Your task to perform on an android device: open app "Pluto TV - Live TV and Movies" (install if not already installed) Image 0: 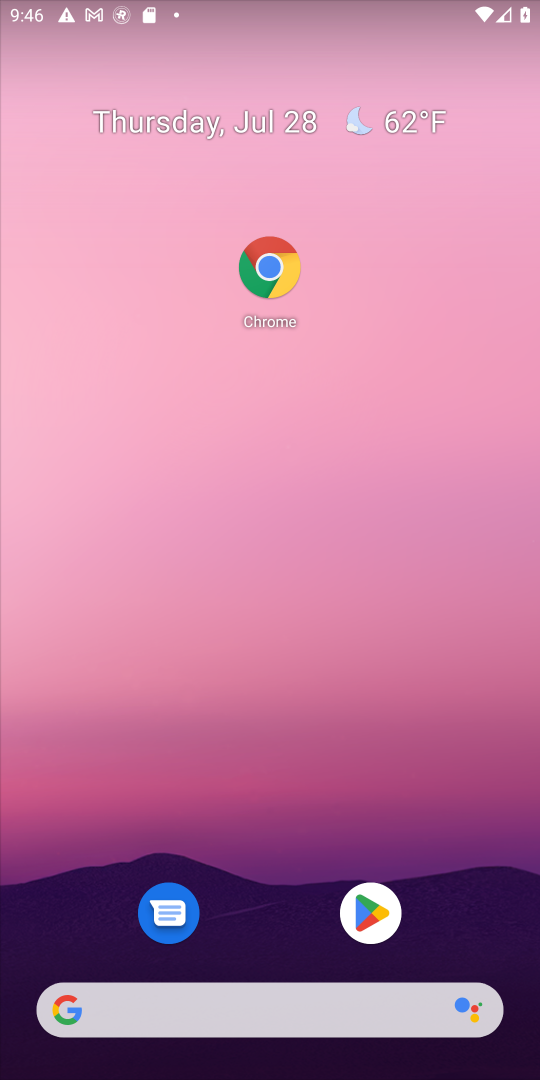
Step 0: click (378, 896)
Your task to perform on an android device: open app "Pluto TV - Live TV and Movies" (install if not already installed) Image 1: 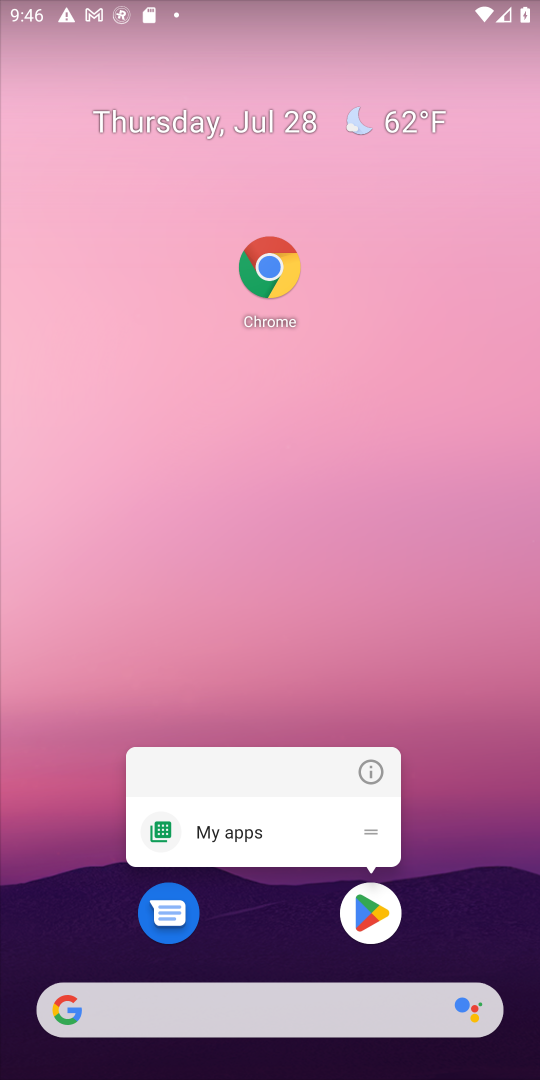
Step 1: click (388, 927)
Your task to perform on an android device: open app "Pluto TV - Live TV and Movies" (install if not already installed) Image 2: 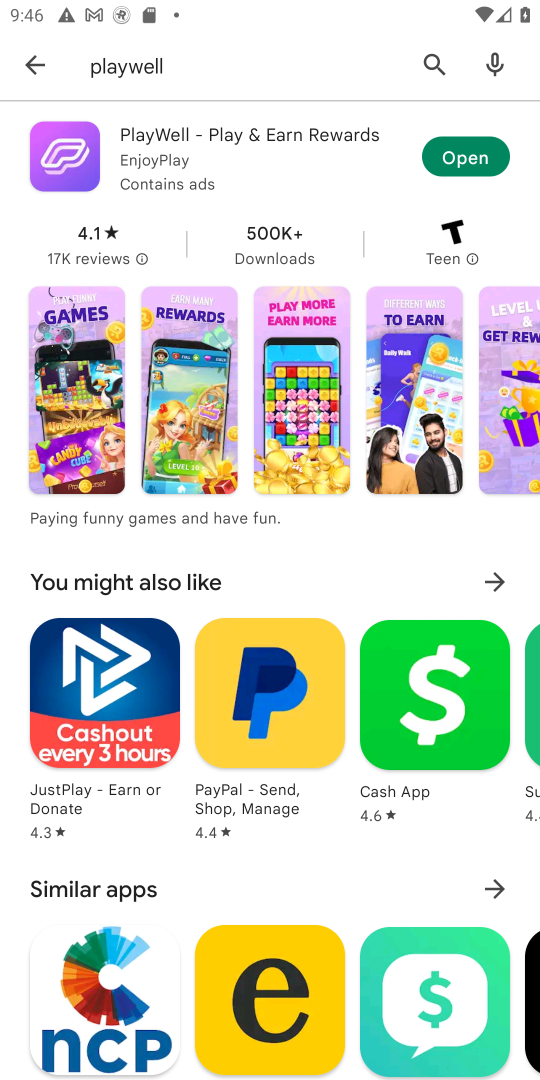
Step 2: click (427, 71)
Your task to perform on an android device: open app "Pluto TV - Live TV and Movies" (install if not already installed) Image 3: 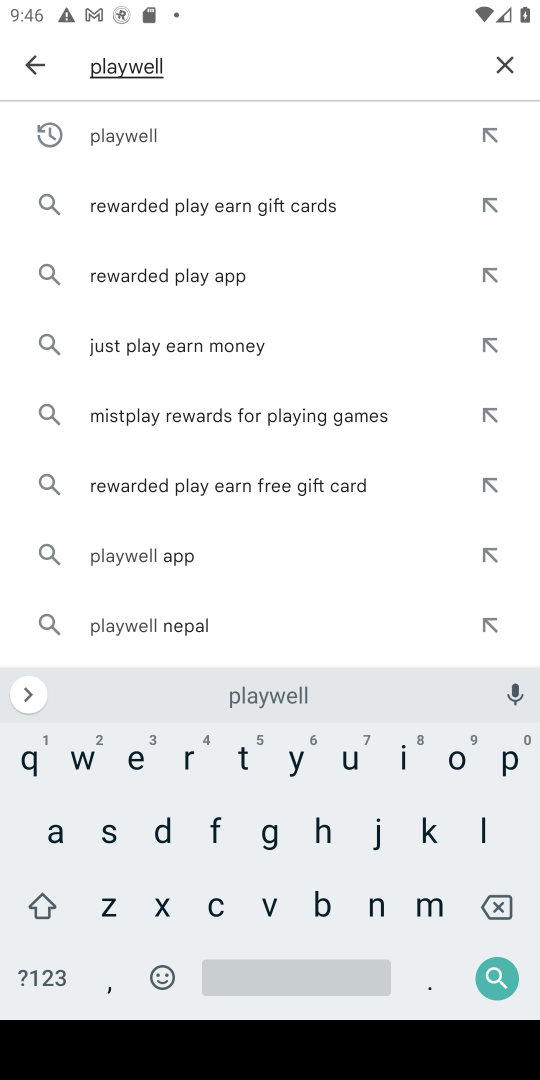
Step 3: click (515, 65)
Your task to perform on an android device: open app "Pluto TV - Live TV and Movies" (install if not already installed) Image 4: 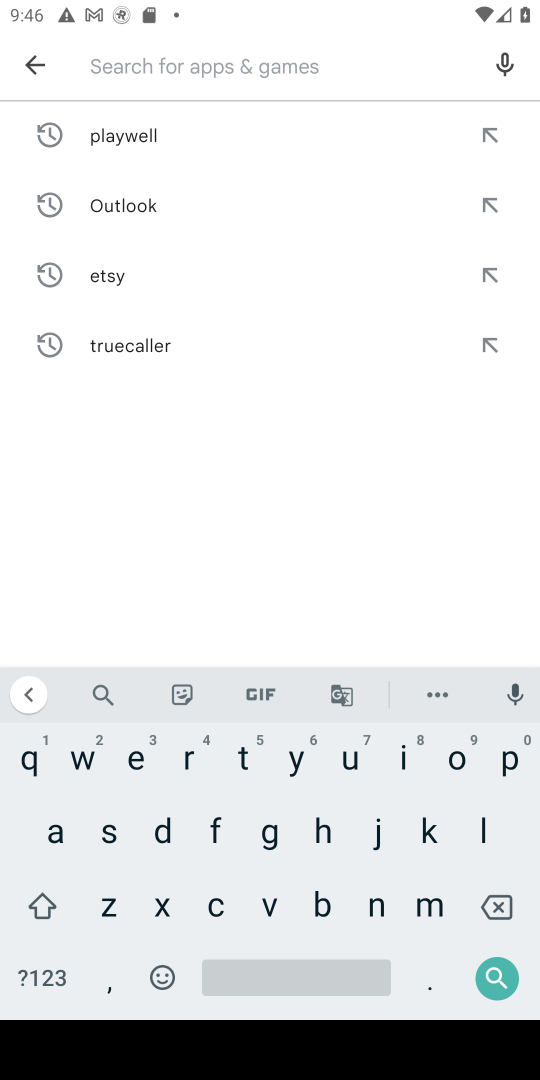
Step 4: click (513, 751)
Your task to perform on an android device: open app "Pluto TV - Live TV and Movies" (install if not already installed) Image 5: 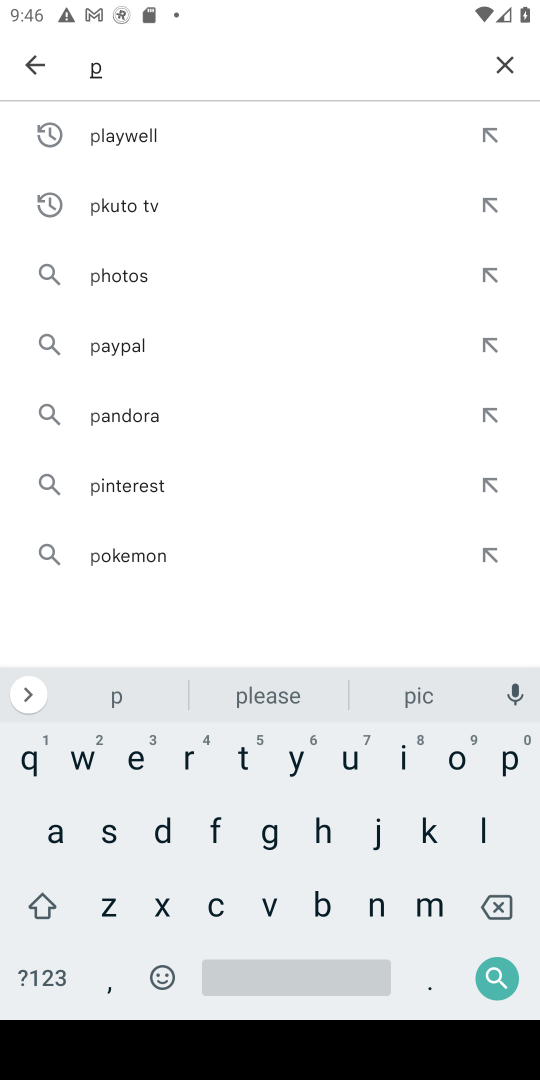
Step 5: click (485, 838)
Your task to perform on an android device: open app "Pluto TV - Live TV and Movies" (install if not already installed) Image 6: 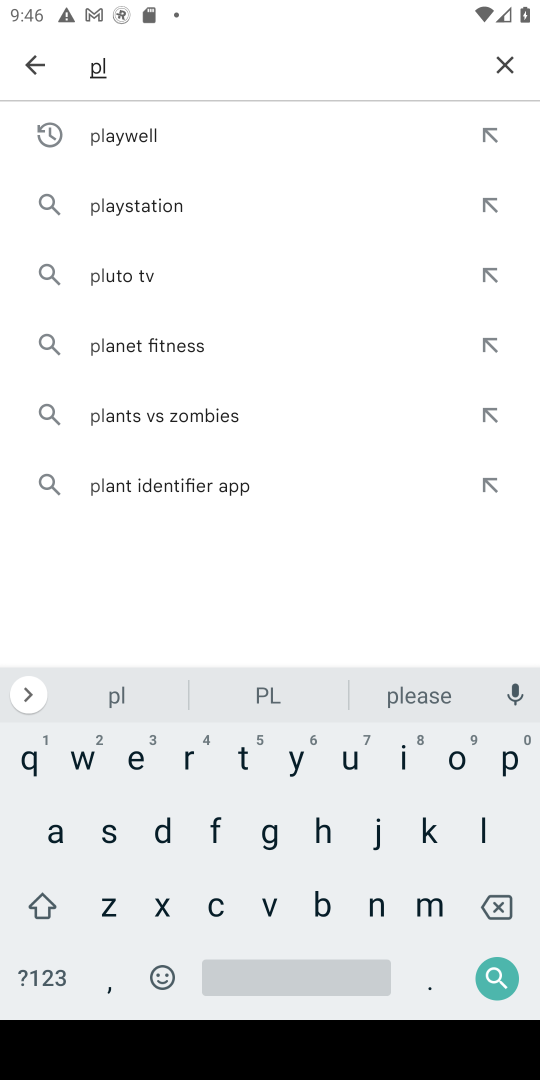
Step 6: click (351, 750)
Your task to perform on an android device: open app "Pluto TV - Live TV and Movies" (install if not already installed) Image 7: 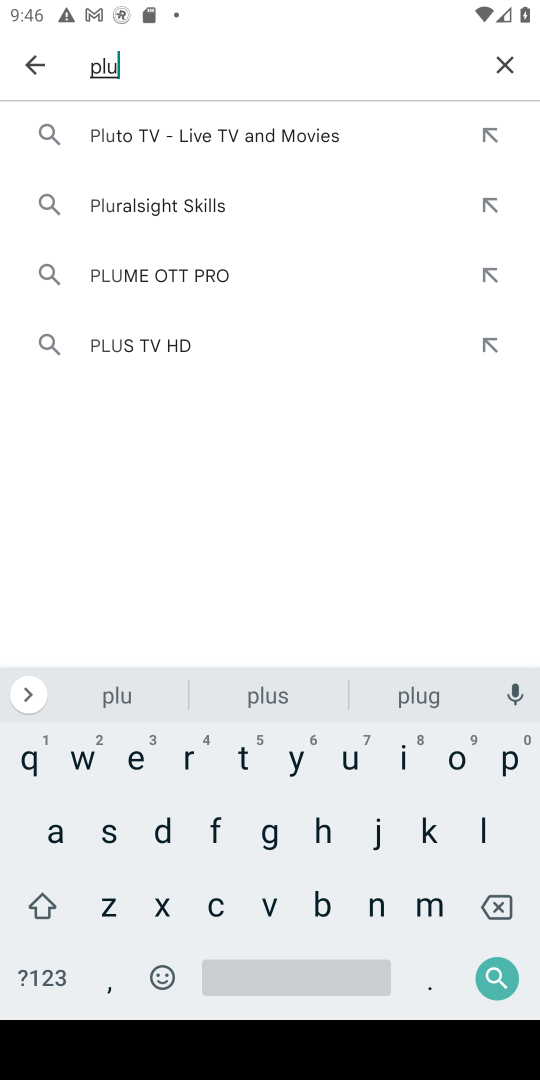
Step 7: click (239, 753)
Your task to perform on an android device: open app "Pluto TV - Live TV and Movies" (install if not already installed) Image 8: 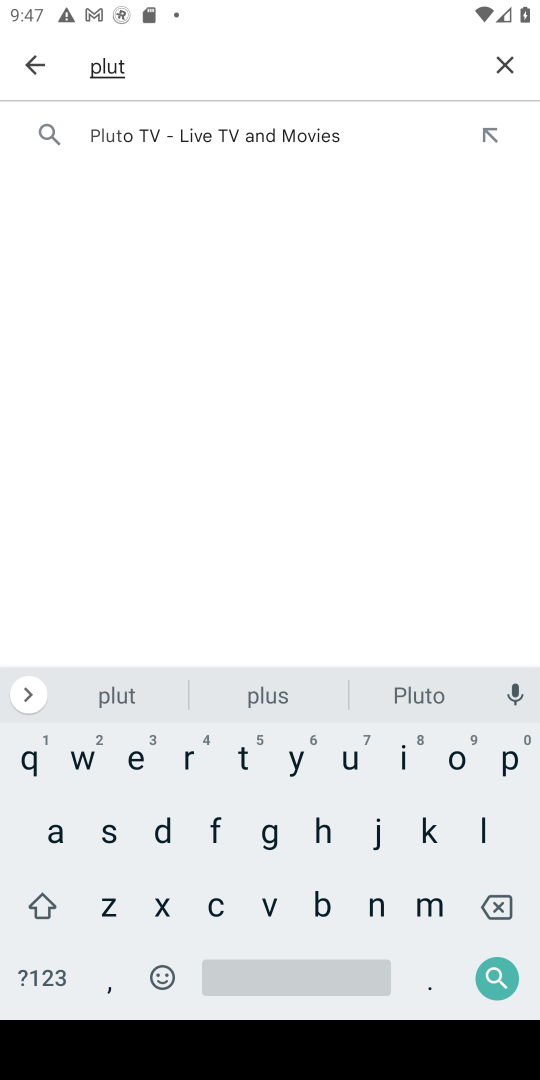
Step 8: click (227, 122)
Your task to perform on an android device: open app "Pluto TV - Live TV and Movies" (install if not already installed) Image 9: 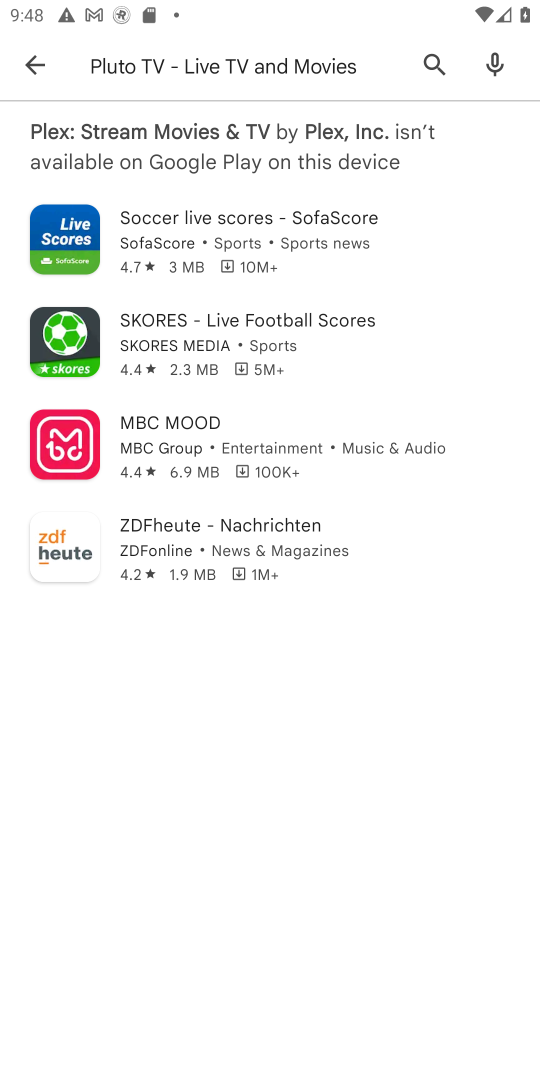
Step 9: task complete